Your task to perform on an android device: Empty the shopping cart on target.com. Add "razer blade" to the cart on target.com, then select checkout. Image 0: 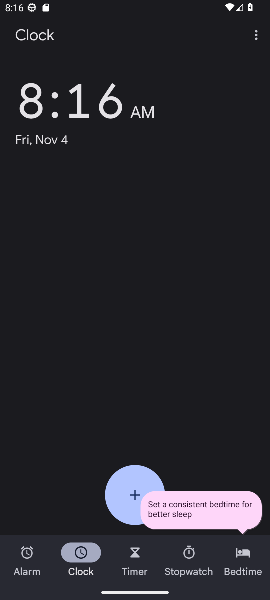
Step 0: press home button
Your task to perform on an android device: Empty the shopping cart on target.com. Add "razer blade" to the cart on target.com, then select checkout. Image 1: 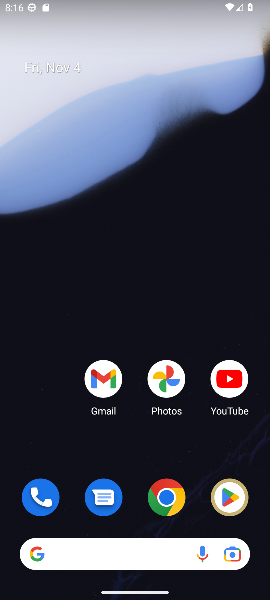
Step 1: click (163, 505)
Your task to perform on an android device: Empty the shopping cart on target.com. Add "razer blade" to the cart on target.com, then select checkout. Image 2: 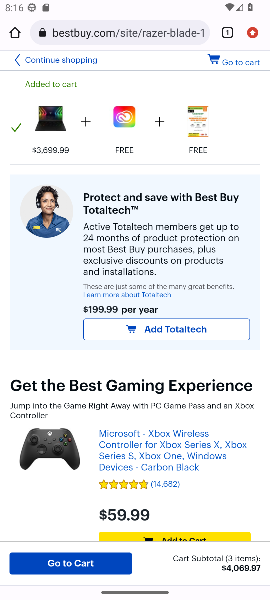
Step 2: click (113, 34)
Your task to perform on an android device: Empty the shopping cart on target.com. Add "razer blade" to the cart on target.com, then select checkout. Image 3: 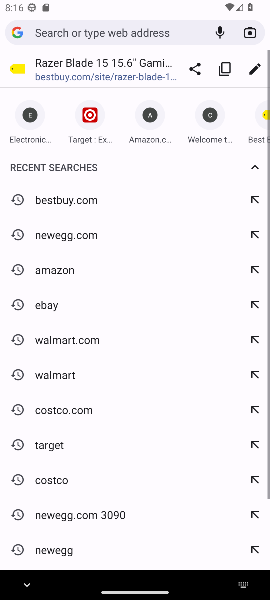
Step 3: click (78, 117)
Your task to perform on an android device: Empty the shopping cart on target.com. Add "razer blade" to the cart on target.com, then select checkout. Image 4: 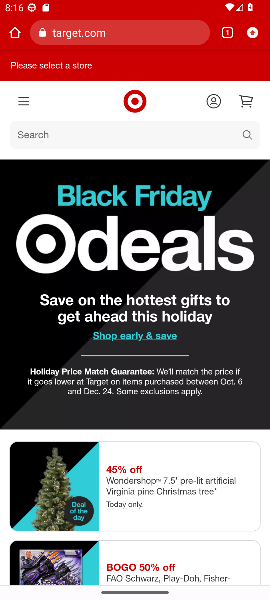
Step 4: click (246, 94)
Your task to perform on an android device: Empty the shopping cart on target.com. Add "razer blade" to the cart on target.com, then select checkout. Image 5: 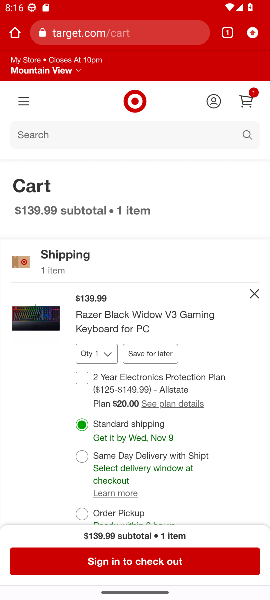
Step 5: click (255, 290)
Your task to perform on an android device: Empty the shopping cart on target.com. Add "razer blade" to the cart on target.com, then select checkout. Image 6: 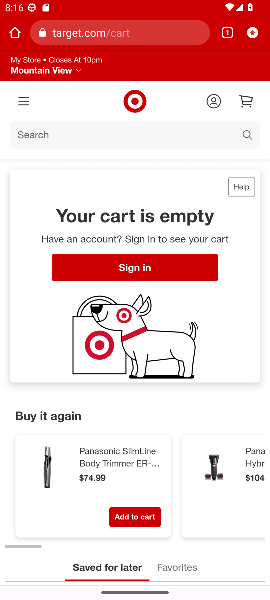
Step 6: click (240, 132)
Your task to perform on an android device: Empty the shopping cart on target.com. Add "razer blade" to the cart on target.com, then select checkout. Image 7: 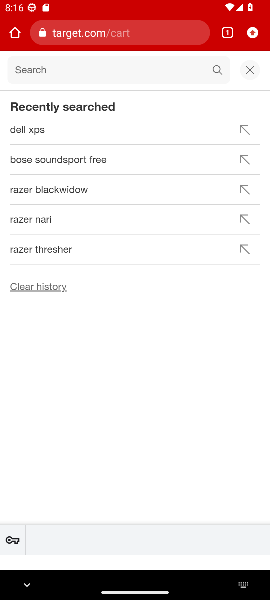
Step 7: type "razer blade"
Your task to perform on an android device: Empty the shopping cart on target.com. Add "razer blade" to the cart on target.com, then select checkout. Image 8: 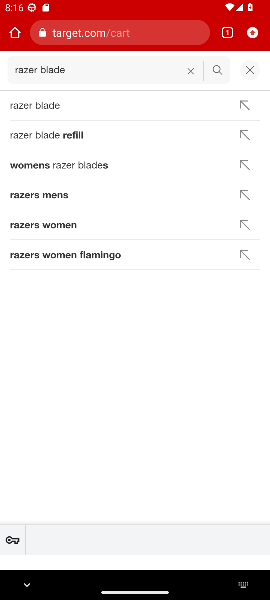
Step 8: click (31, 114)
Your task to perform on an android device: Empty the shopping cart on target.com. Add "razer blade" to the cart on target.com, then select checkout. Image 9: 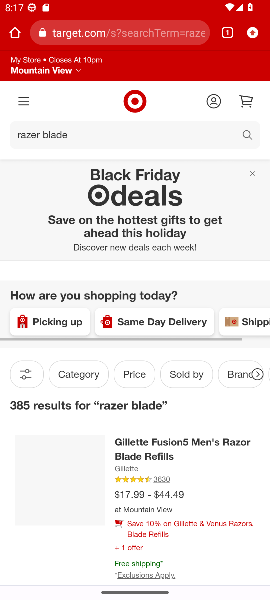
Step 9: click (134, 510)
Your task to perform on an android device: Empty the shopping cart on target.com. Add "razer blade" to the cart on target.com, then select checkout. Image 10: 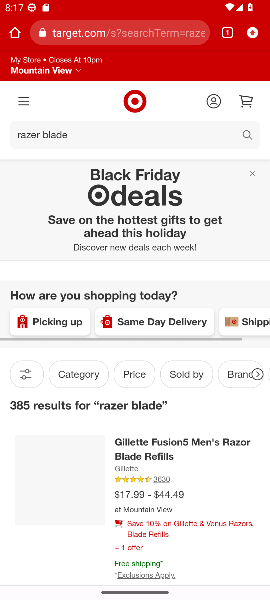
Step 10: drag from (134, 510) to (120, 292)
Your task to perform on an android device: Empty the shopping cart on target.com. Add "razer blade" to the cart on target.com, then select checkout. Image 11: 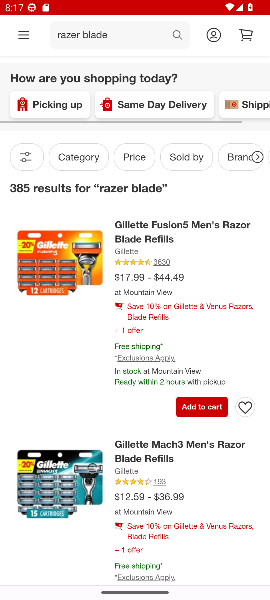
Step 11: click (114, 295)
Your task to perform on an android device: Empty the shopping cart on target.com. Add "razer blade" to the cart on target.com, then select checkout. Image 12: 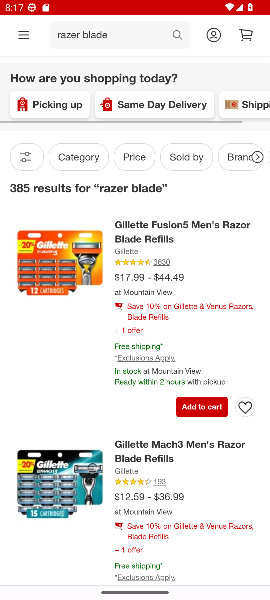
Step 12: click (60, 272)
Your task to perform on an android device: Empty the shopping cart on target.com. Add "razer blade" to the cart on target.com, then select checkout. Image 13: 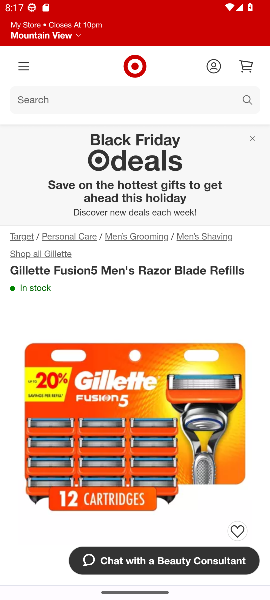
Step 13: drag from (75, 468) to (73, 290)
Your task to perform on an android device: Empty the shopping cart on target.com. Add "razer blade" to the cart on target.com, then select checkout. Image 14: 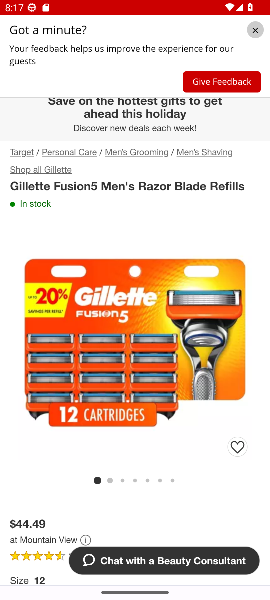
Step 14: drag from (67, 435) to (65, 206)
Your task to perform on an android device: Empty the shopping cart on target.com. Add "razer blade" to the cart on target.com, then select checkout. Image 15: 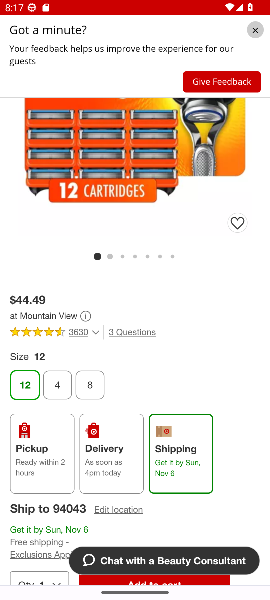
Step 15: drag from (89, 427) to (97, 256)
Your task to perform on an android device: Empty the shopping cart on target.com. Add "razer blade" to the cart on target.com, then select checkout. Image 16: 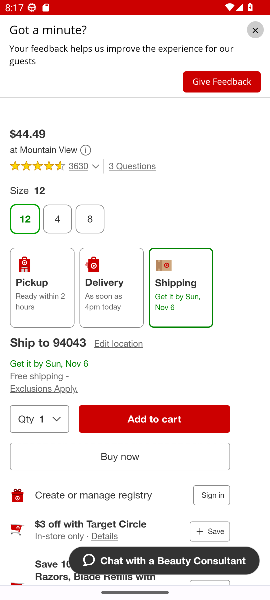
Step 16: click (148, 424)
Your task to perform on an android device: Empty the shopping cart on target.com. Add "razer blade" to the cart on target.com, then select checkout. Image 17: 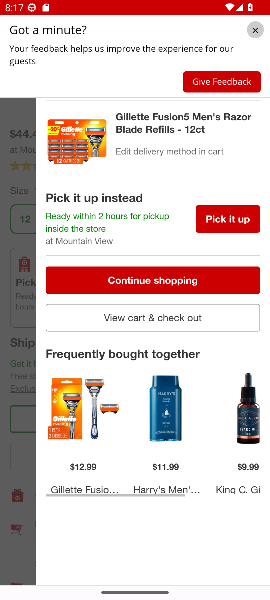
Step 17: click (144, 316)
Your task to perform on an android device: Empty the shopping cart on target.com. Add "razer blade" to the cart on target.com, then select checkout. Image 18: 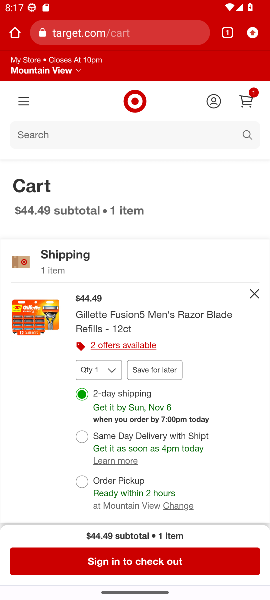
Step 18: click (111, 557)
Your task to perform on an android device: Empty the shopping cart on target.com. Add "razer blade" to the cart on target.com, then select checkout. Image 19: 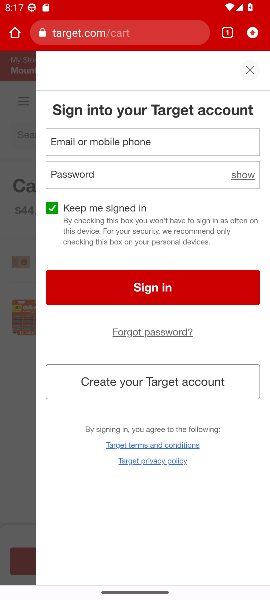
Step 19: task complete